Your task to perform on an android device: How do I get to the nearest electronics store? Image 0: 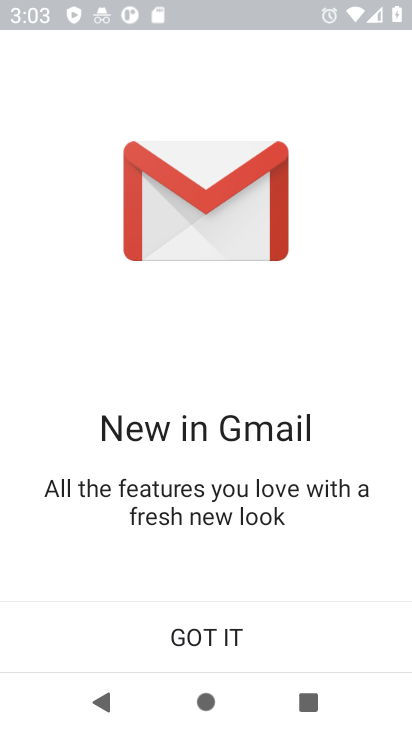
Step 0: press home button
Your task to perform on an android device: How do I get to the nearest electronics store? Image 1: 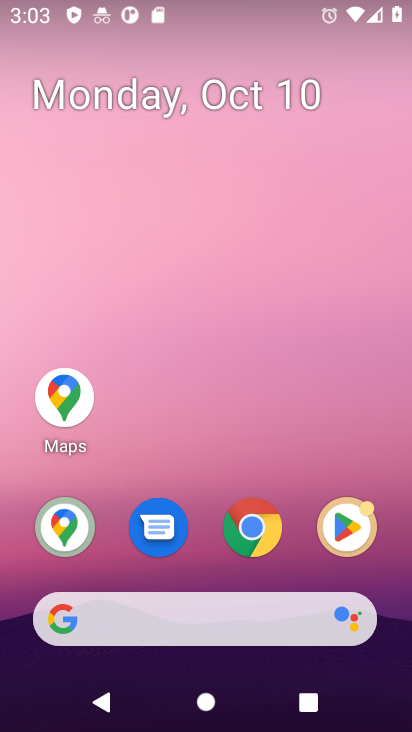
Step 1: click (64, 396)
Your task to perform on an android device: How do I get to the nearest electronics store? Image 2: 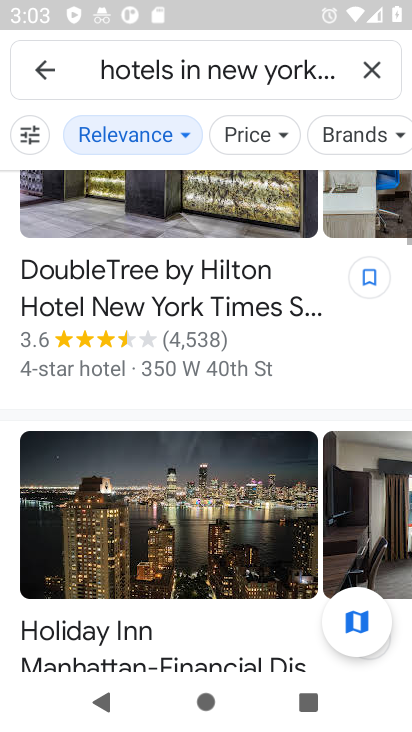
Step 2: click (371, 70)
Your task to perform on an android device: How do I get to the nearest electronics store? Image 3: 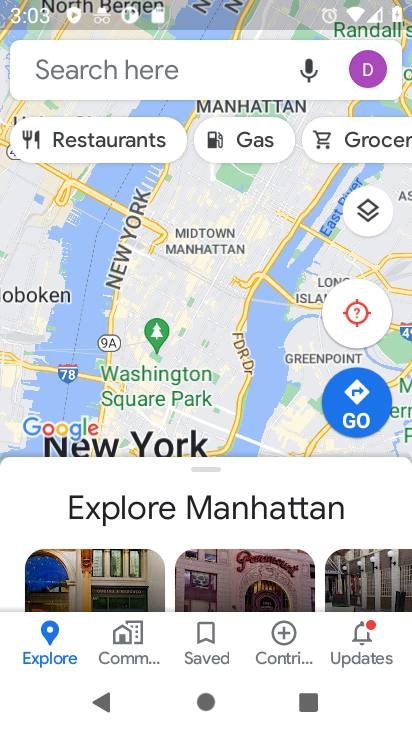
Step 3: click (190, 73)
Your task to perform on an android device: How do I get to the nearest electronics store? Image 4: 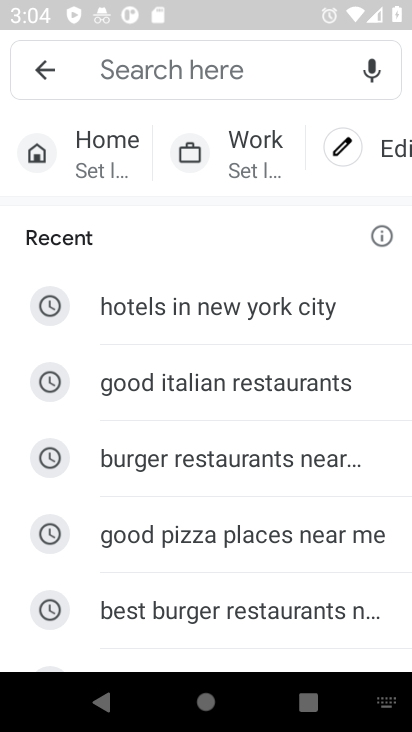
Step 4: type "nearest electronics store"
Your task to perform on an android device: How do I get to the nearest electronics store? Image 5: 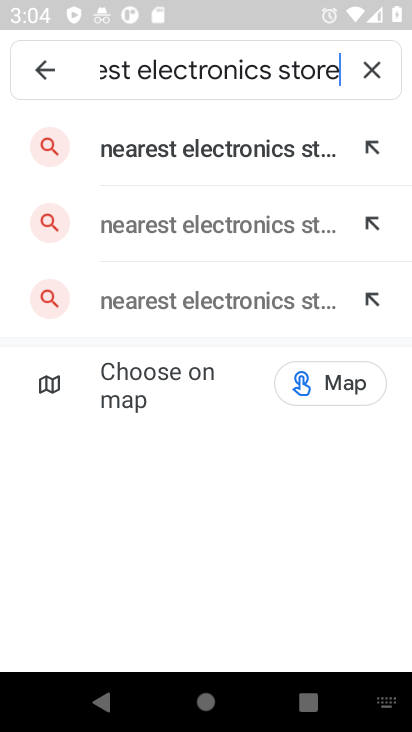
Step 5: click (192, 141)
Your task to perform on an android device: How do I get to the nearest electronics store? Image 6: 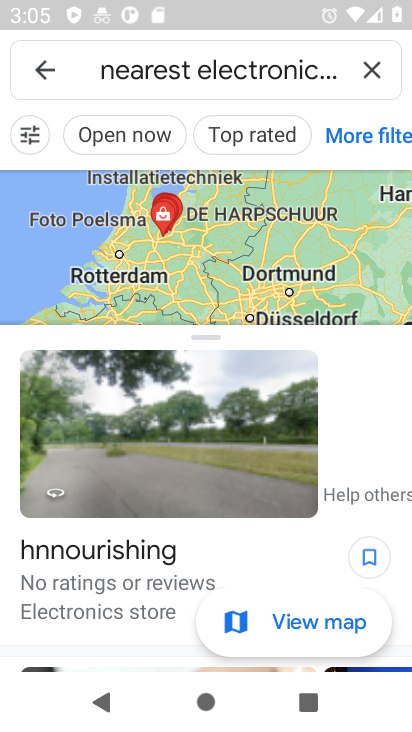
Step 6: task complete